Your task to perform on an android device: turn vacation reply on in the gmail app Image 0: 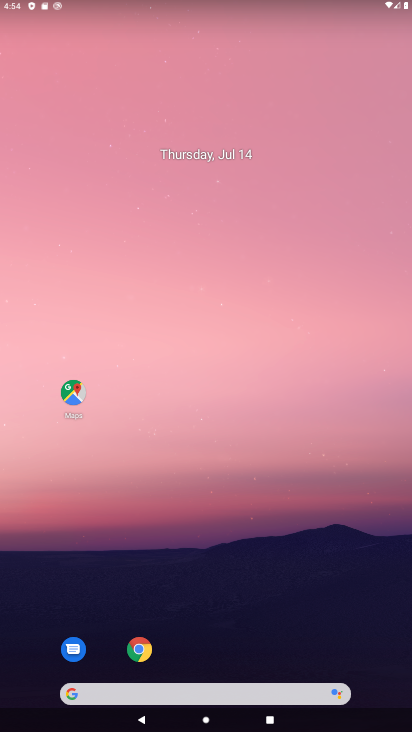
Step 0: drag from (260, 579) to (330, 0)
Your task to perform on an android device: turn vacation reply on in the gmail app Image 1: 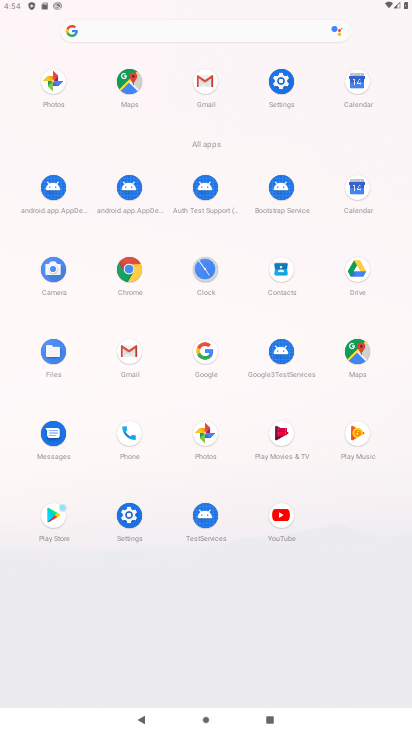
Step 1: click (132, 354)
Your task to perform on an android device: turn vacation reply on in the gmail app Image 2: 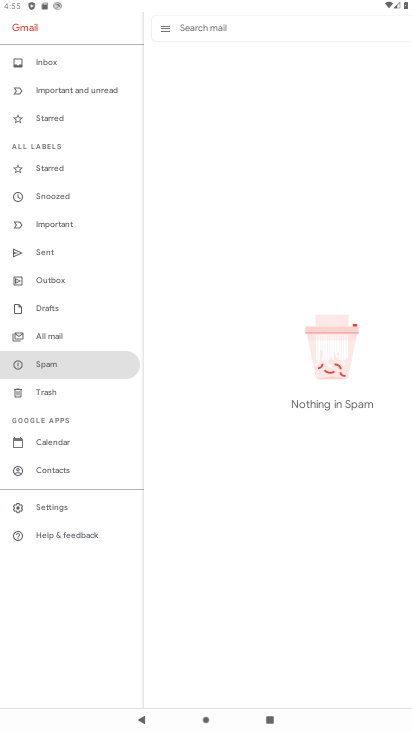
Step 2: click (62, 504)
Your task to perform on an android device: turn vacation reply on in the gmail app Image 3: 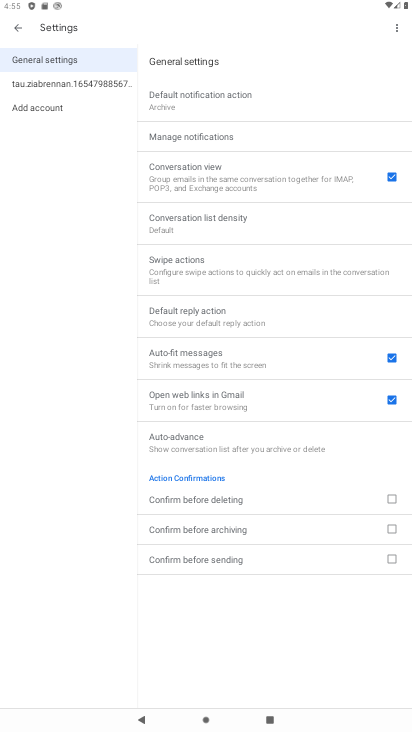
Step 3: click (31, 77)
Your task to perform on an android device: turn vacation reply on in the gmail app Image 4: 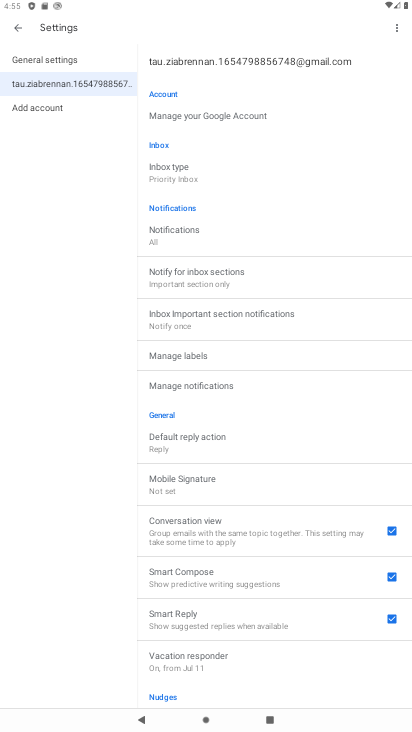
Step 4: click (217, 670)
Your task to perform on an android device: turn vacation reply on in the gmail app Image 5: 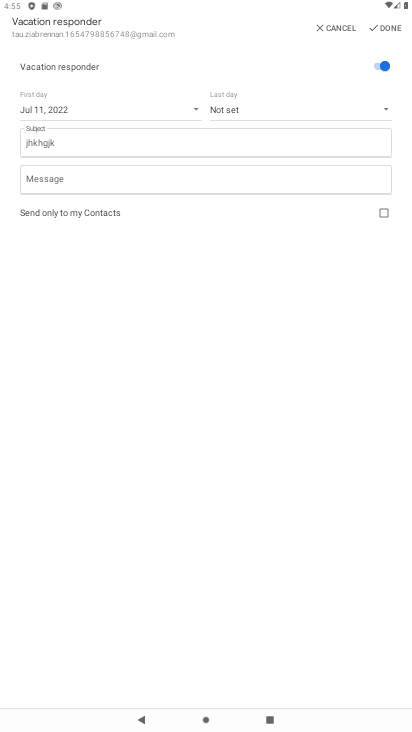
Step 5: task complete